Your task to perform on an android device: Go to notification settings Image 0: 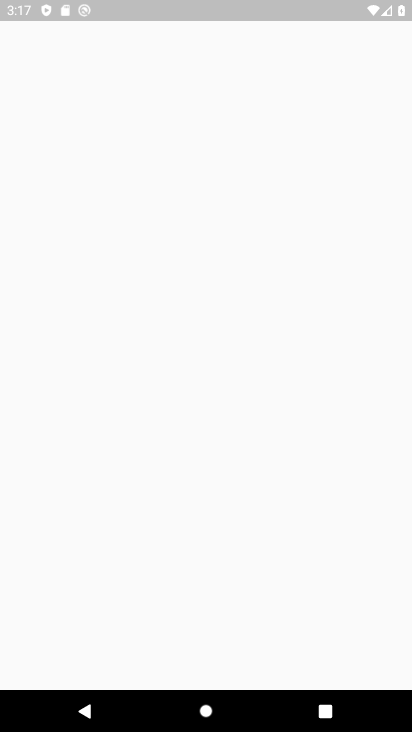
Step 0: press home button
Your task to perform on an android device: Go to notification settings Image 1: 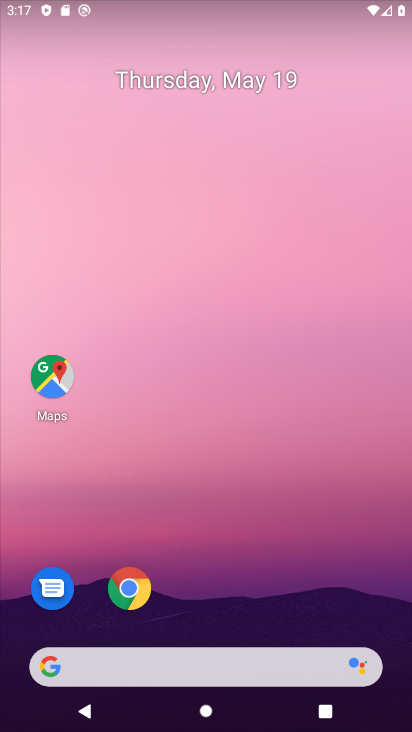
Step 1: drag from (237, 497) to (312, 101)
Your task to perform on an android device: Go to notification settings Image 2: 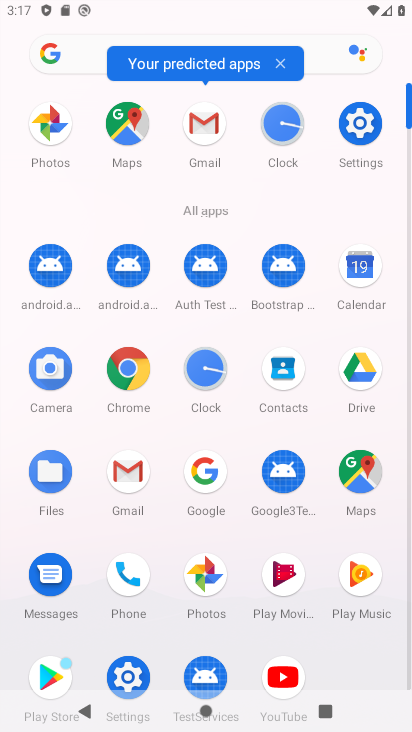
Step 2: click (135, 677)
Your task to perform on an android device: Go to notification settings Image 3: 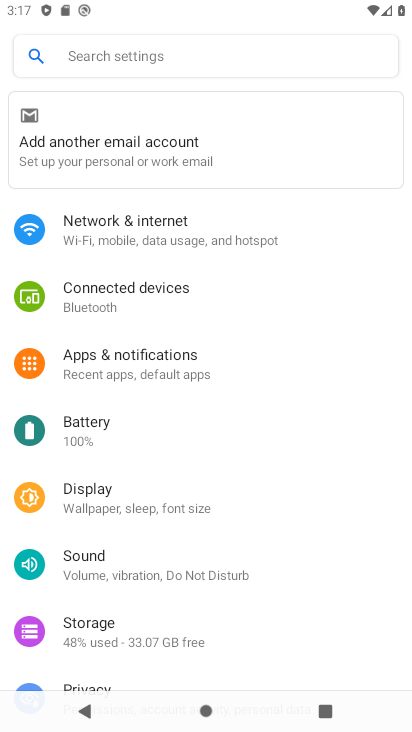
Step 3: click (146, 375)
Your task to perform on an android device: Go to notification settings Image 4: 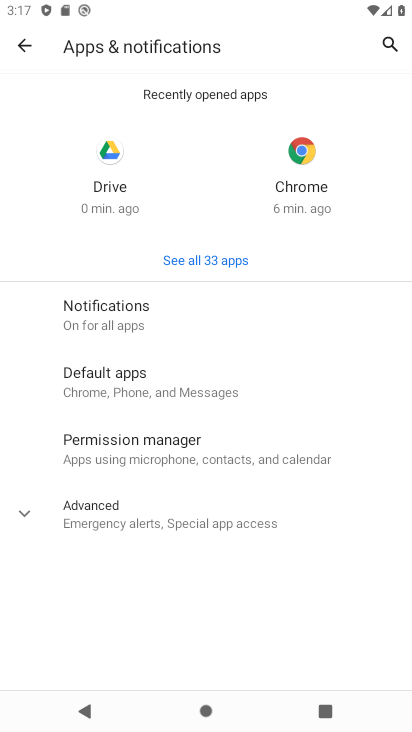
Step 4: click (151, 328)
Your task to perform on an android device: Go to notification settings Image 5: 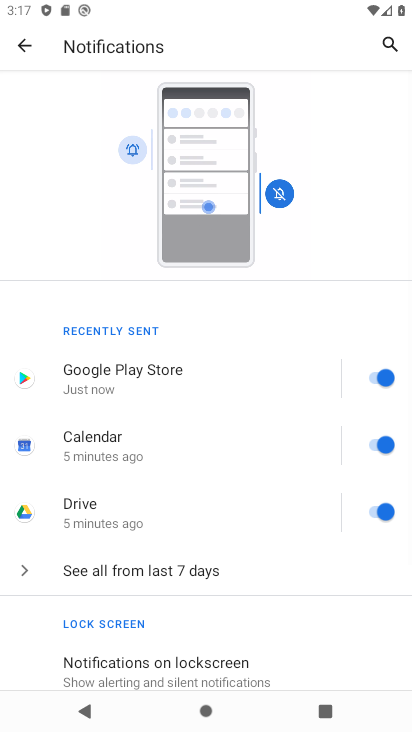
Step 5: task complete